Your task to perform on an android device: Go to Yahoo.com Image 0: 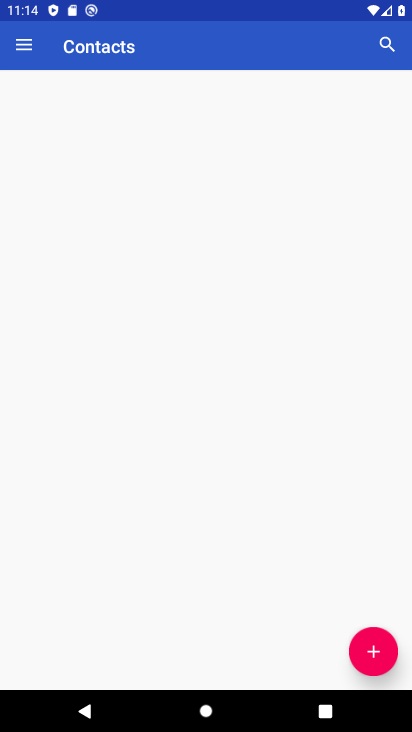
Step 0: press home button
Your task to perform on an android device: Go to Yahoo.com Image 1: 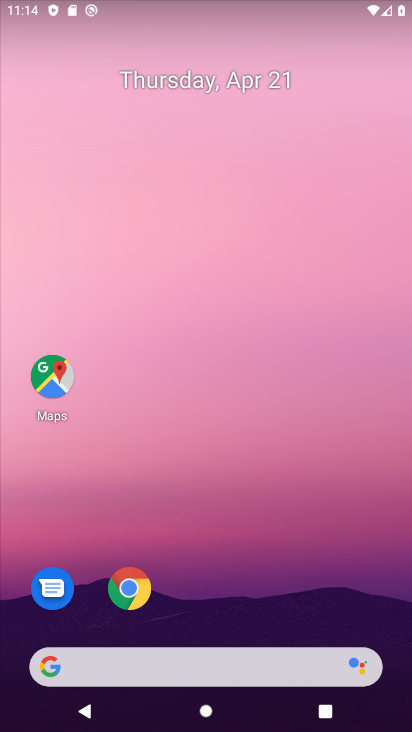
Step 1: click (231, 669)
Your task to perform on an android device: Go to Yahoo.com Image 2: 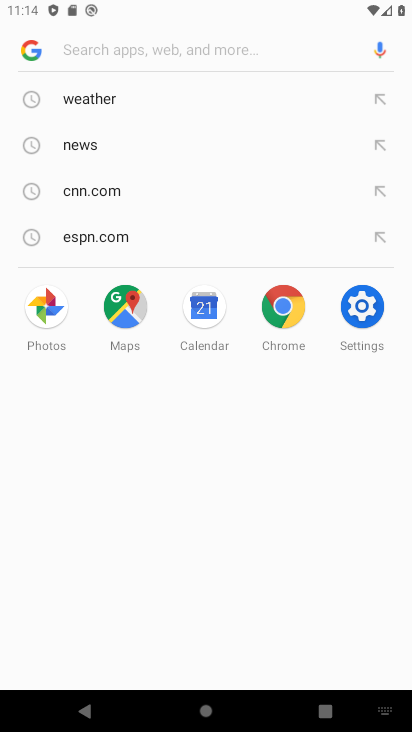
Step 2: type "Yahoo.com"
Your task to perform on an android device: Go to Yahoo.com Image 3: 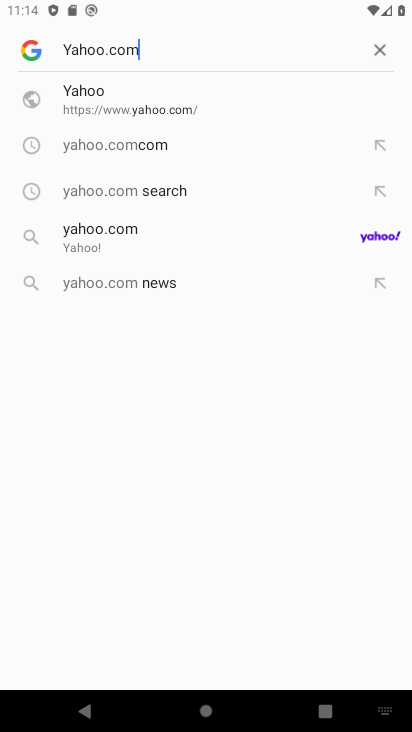
Step 3: click (147, 114)
Your task to perform on an android device: Go to Yahoo.com Image 4: 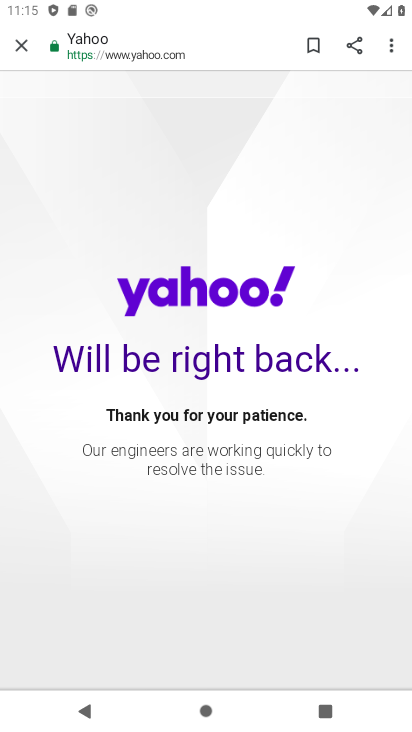
Step 4: task complete